Your task to perform on an android device: change your default location settings in chrome Image 0: 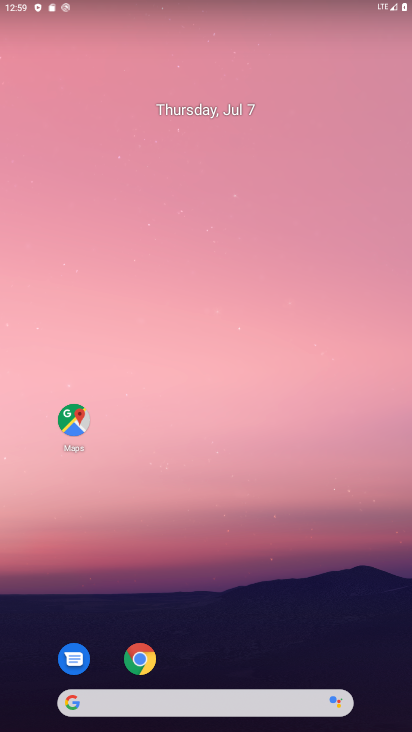
Step 0: drag from (277, 581) to (246, 148)
Your task to perform on an android device: change your default location settings in chrome Image 1: 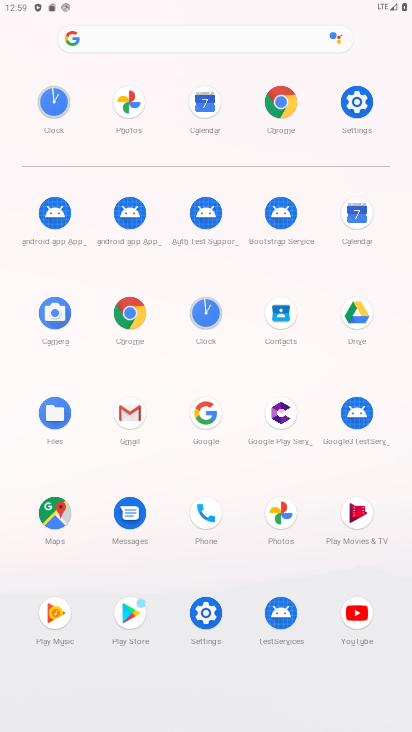
Step 1: click (283, 93)
Your task to perform on an android device: change your default location settings in chrome Image 2: 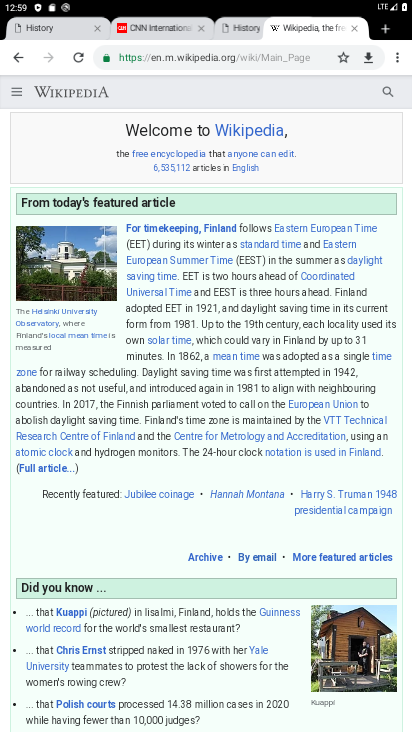
Step 2: click (394, 59)
Your task to perform on an android device: change your default location settings in chrome Image 3: 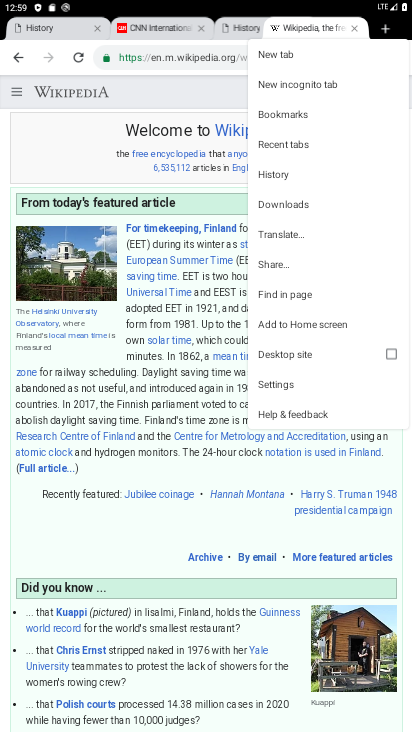
Step 3: click (288, 386)
Your task to perform on an android device: change your default location settings in chrome Image 4: 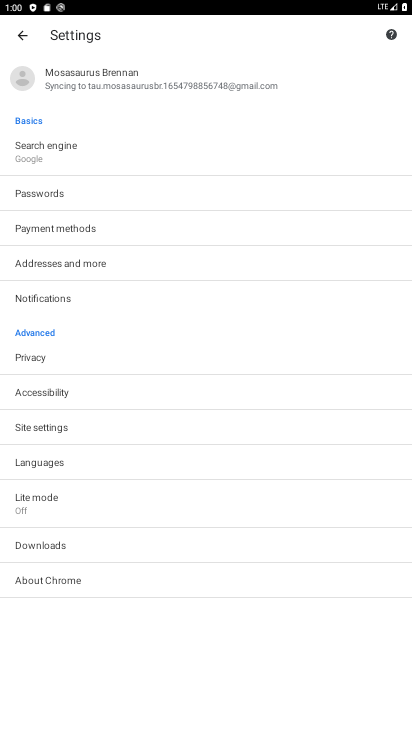
Step 4: click (58, 428)
Your task to perform on an android device: change your default location settings in chrome Image 5: 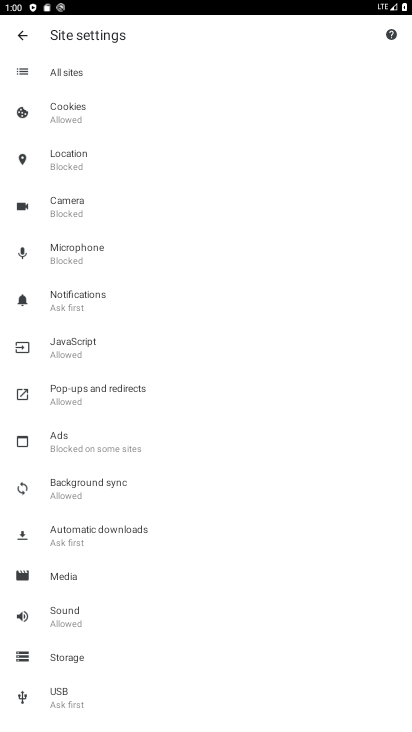
Step 5: click (64, 156)
Your task to perform on an android device: change your default location settings in chrome Image 6: 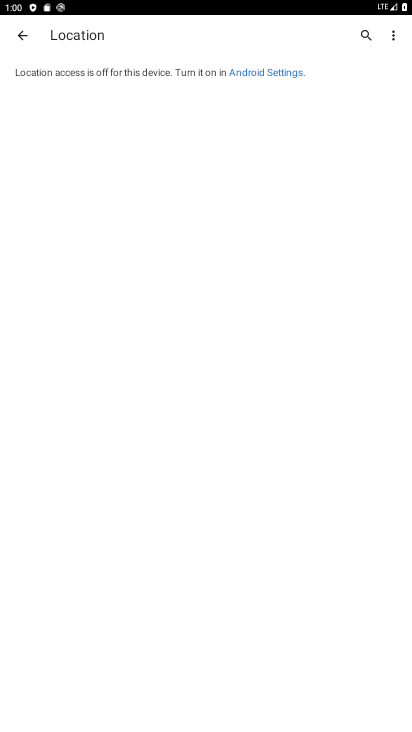
Step 6: click (260, 70)
Your task to perform on an android device: change your default location settings in chrome Image 7: 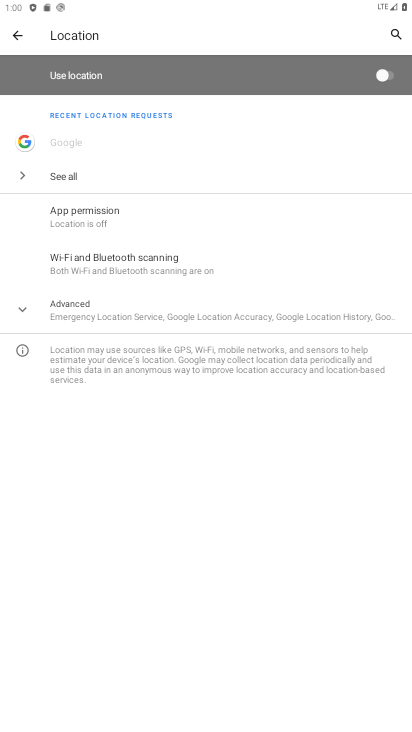
Step 7: click (380, 71)
Your task to perform on an android device: change your default location settings in chrome Image 8: 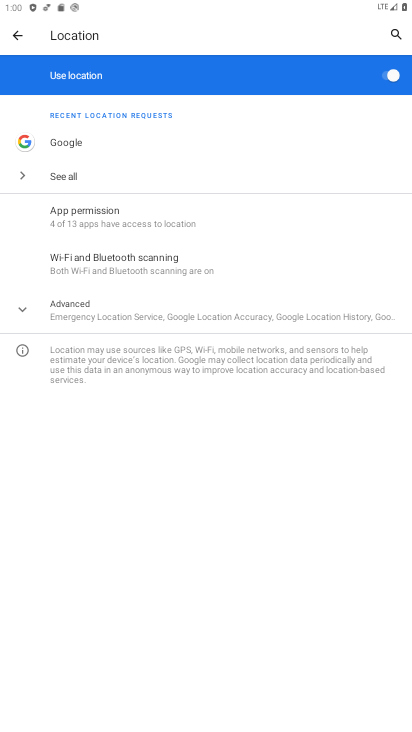
Step 8: task complete